Your task to perform on an android device: Add acer nitro to the cart on amazon.com, then select checkout. Image 0: 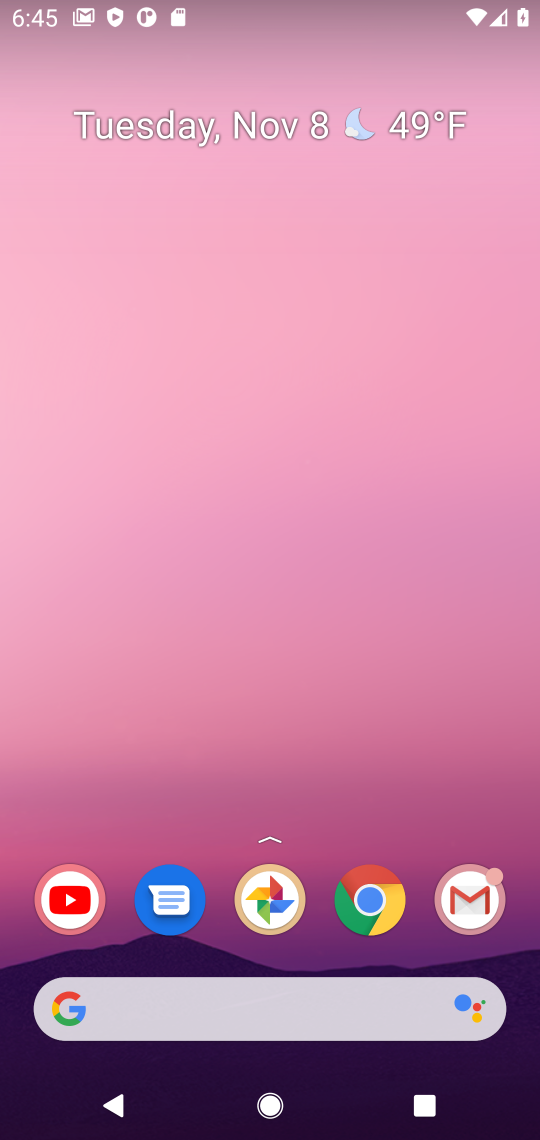
Step 0: click (239, 88)
Your task to perform on an android device: Add acer nitro to the cart on amazon.com, then select checkout. Image 1: 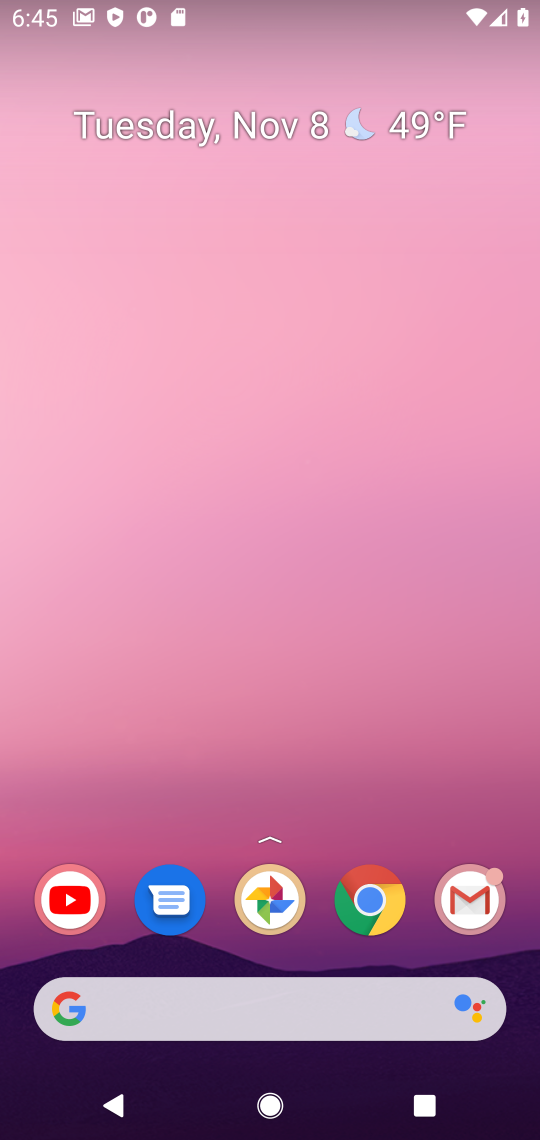
Step 1: click (391, 914)
Your task to perform on an android device: Add acer nitro to the cart on amazon.com, then select checkout. Image 2: 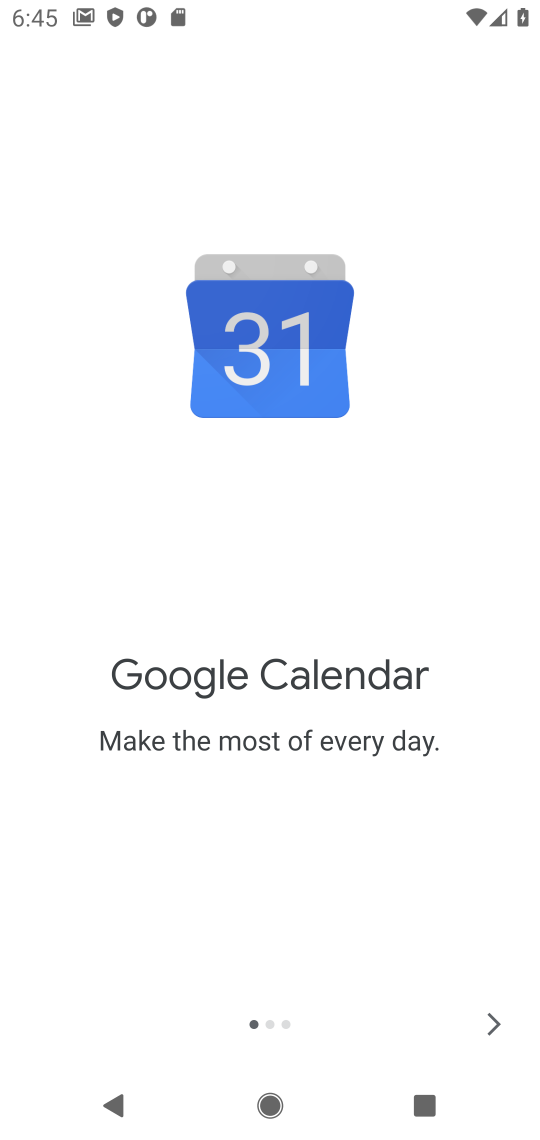
Step 2: press home button
Your task to perform on an android device: Add acer nitro to the cart on amazon.com, then select checkout. Image 3: 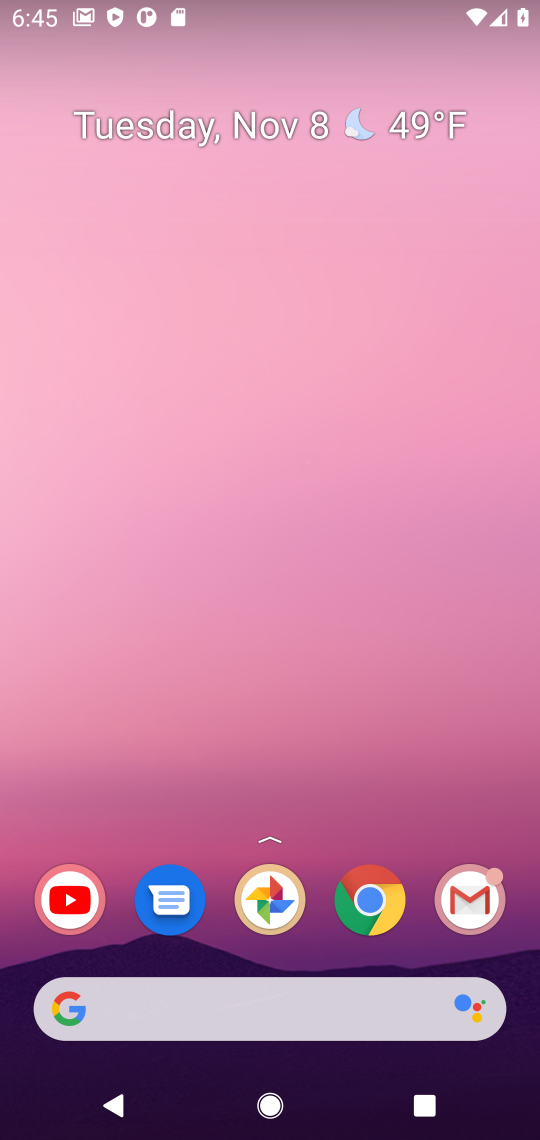
Step 3: click (378, 899)
Your task to perform on an android device: Add acer nitro to the cart on amazon.com, then select checkout. Image 4: 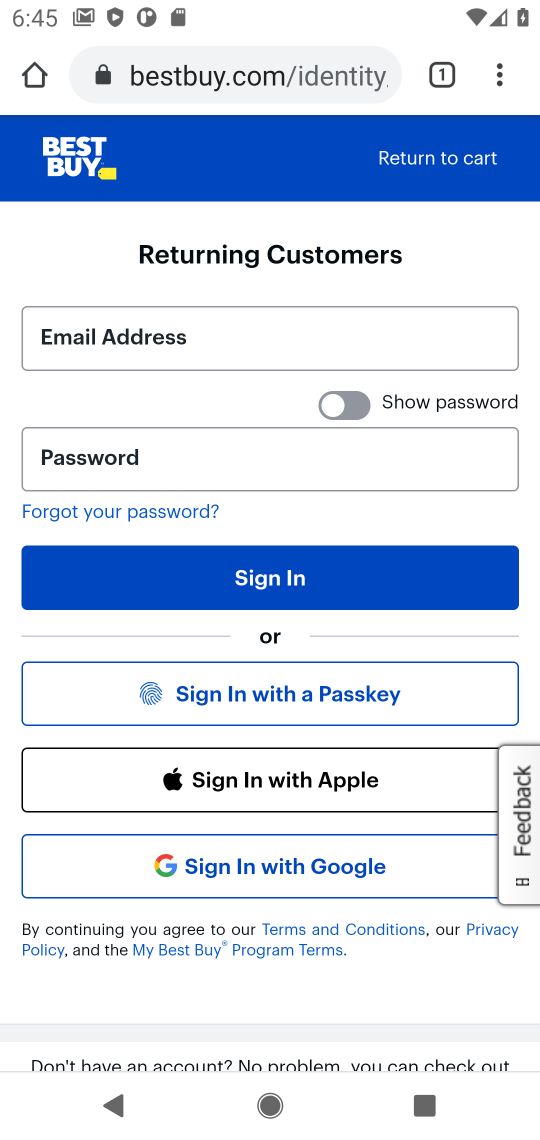
Step 4: click (248, 88)
Your task to perform on an android device: Add acer nitro to the cart on amazon.com, then select checkout. Image 5: 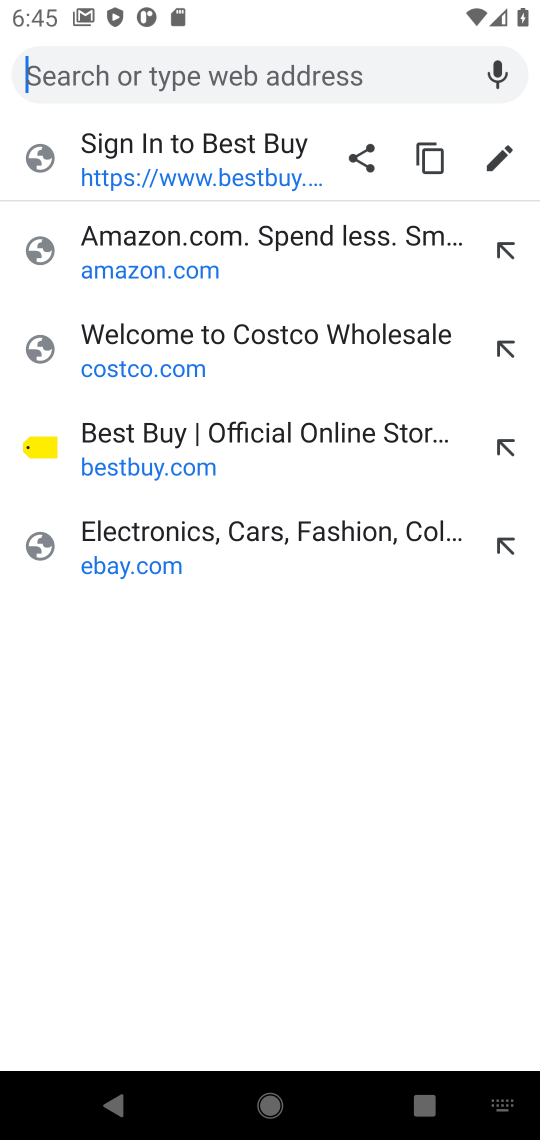
Step 5: type "amazon.com"
Your task to perform on an android device: Add acer nitro to the cart on amazon.com, then select checkout. Image 6: 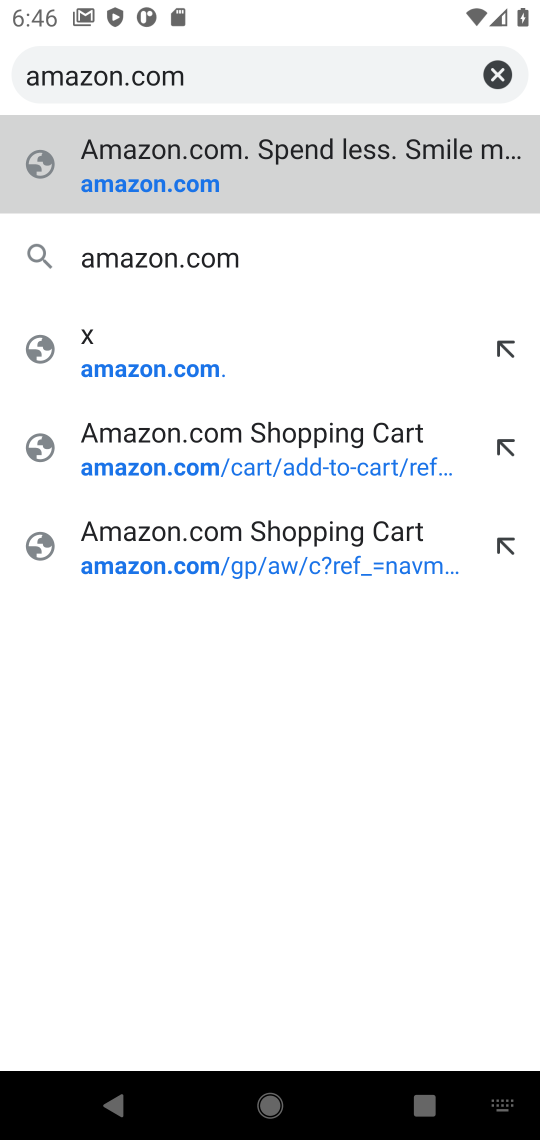
Step 6: type ""
Your task to perform on an android device: Add acer nitro to the cart on amazon.com, then select checkout. Image 7: 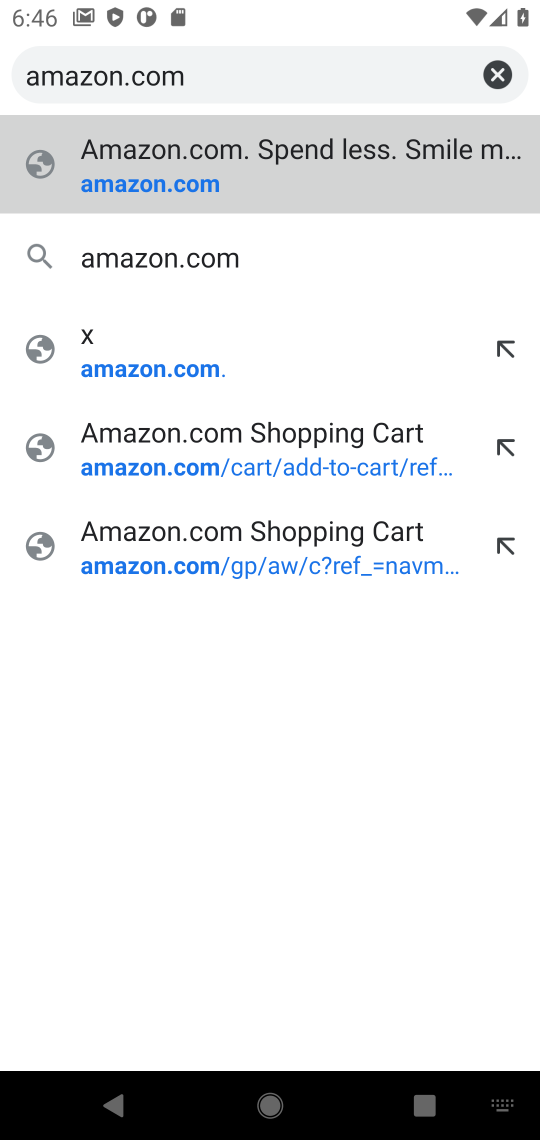
Step 7: press enter
Your task to perform on an android device: Add acer nitro to the cart on amazon.com, then select checkout. Image 8: 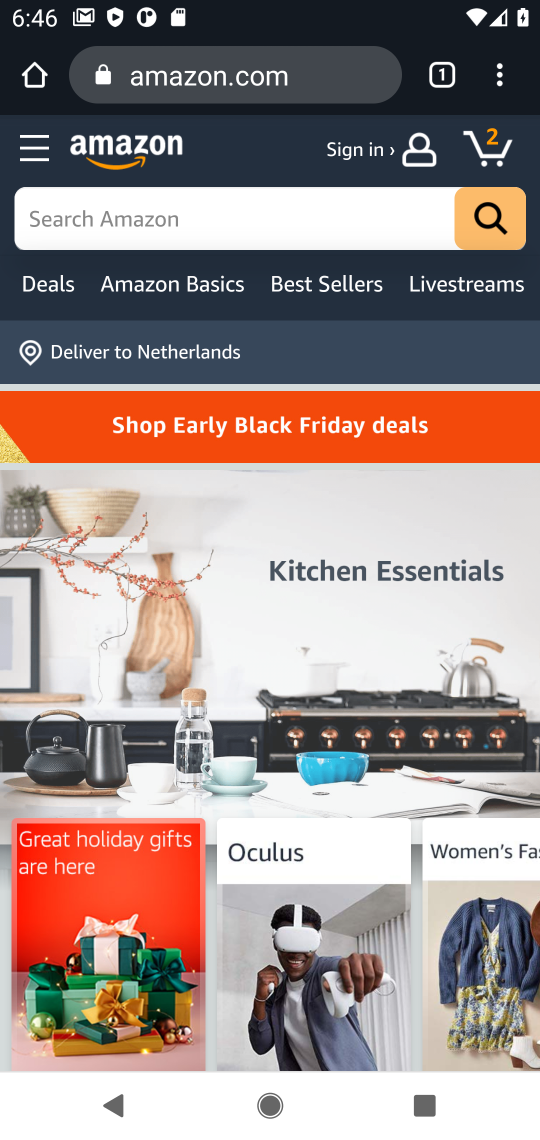
Step 8: click (251, 224)
Your task to perform on an android device: Add acer nitro to the cart on amazon.com, then select checkout. Image 9: 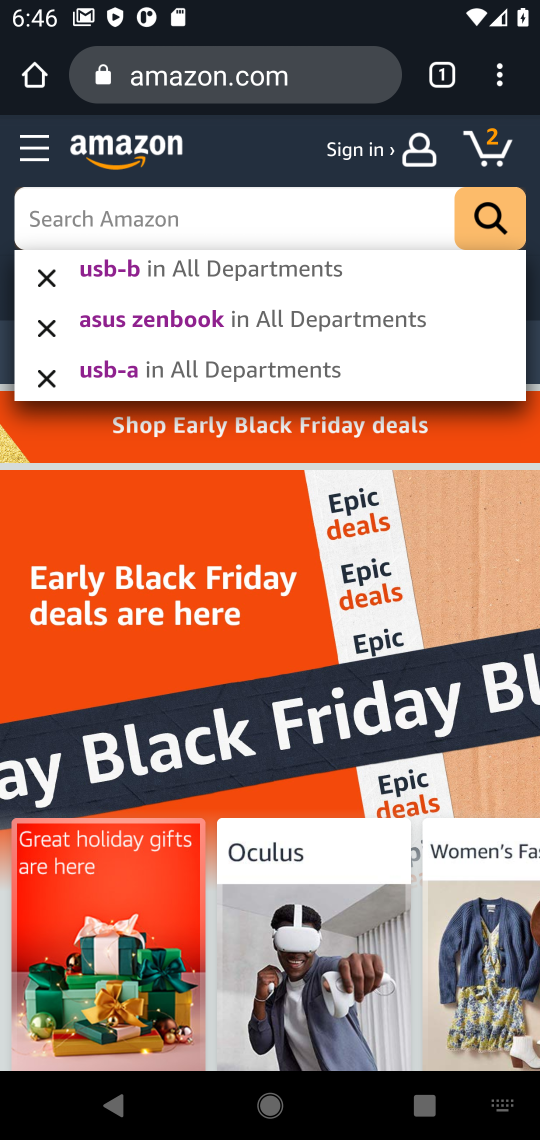
Step 9: type "acer nitro"
Your task to perform on an android device: Add acer nitro to the cart on amazon.com, then select checkout. Image 10: 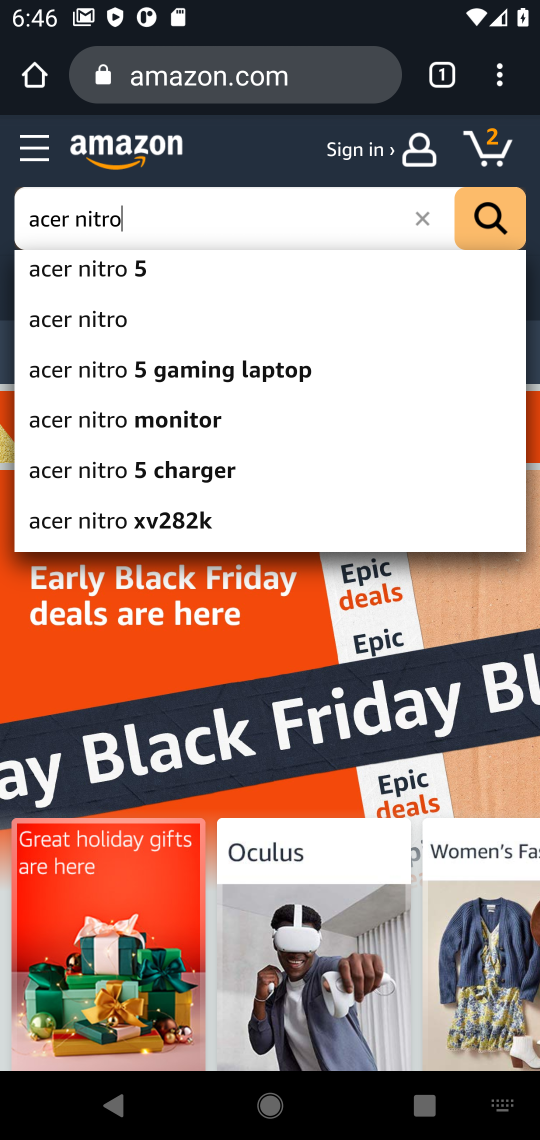
Step 10: press enter
Your task to perform on an android device: Add acer nitro to the cart on amazon.com, then select checkout. Image 11: 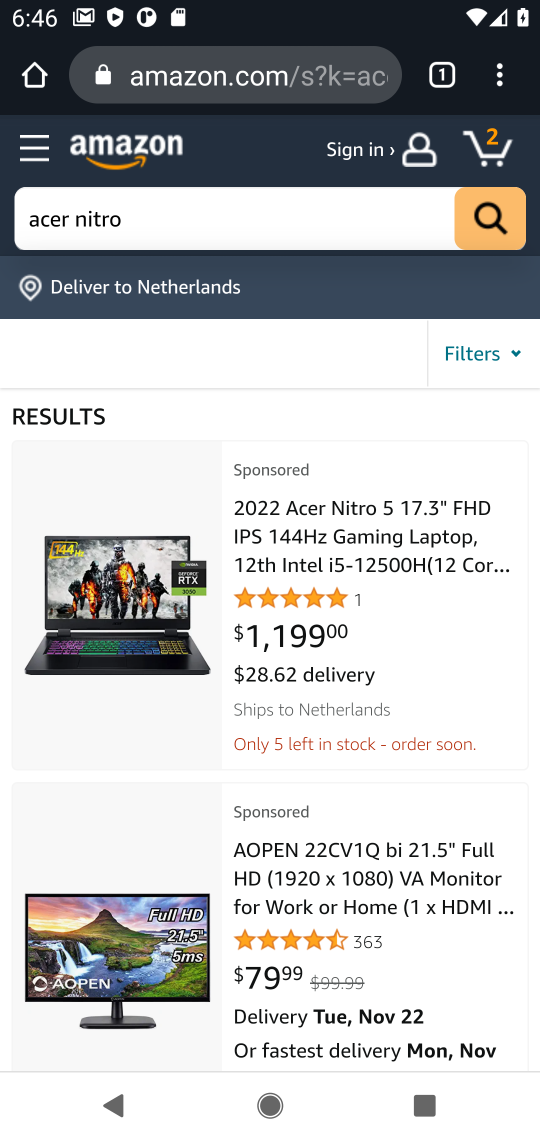
Step 11: click (370, 557)
Your task to perform on an android device: Add acer nitro to the cart on amazon.com, then select checkout. Image 12: 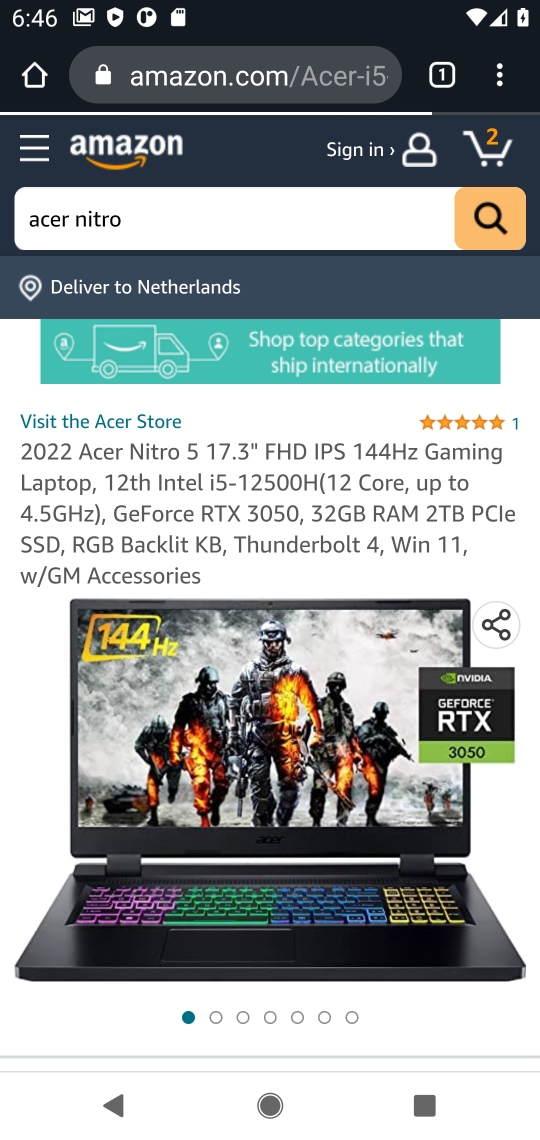
Step 12: drag from (267, 786) to (303, 290)
Your task to perform on an android device: Add acer nitro to the cart on amazon.com, then select checkout. Image 13: 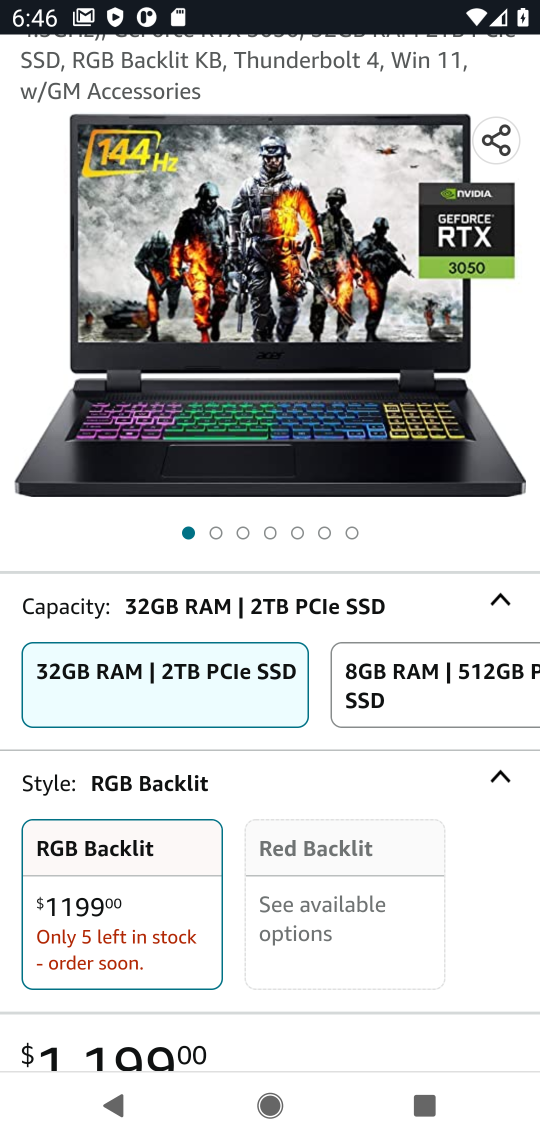
Step 13: drag from (343, 956) to (353, 379)
Your task to perform on an android device: Add acer nitro to the cart on amazon.com, then select checkout. Image 14: 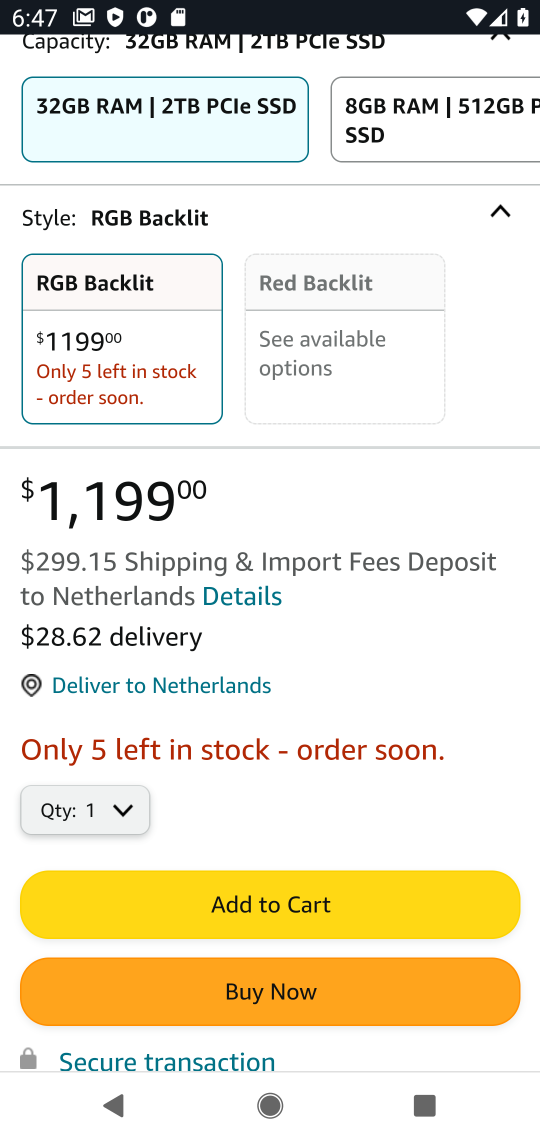
Step 14: click (214, 902)
Your task to perform on an android device: Add acer nitro to the cart on amazon.com, then select checkout. Image 15: 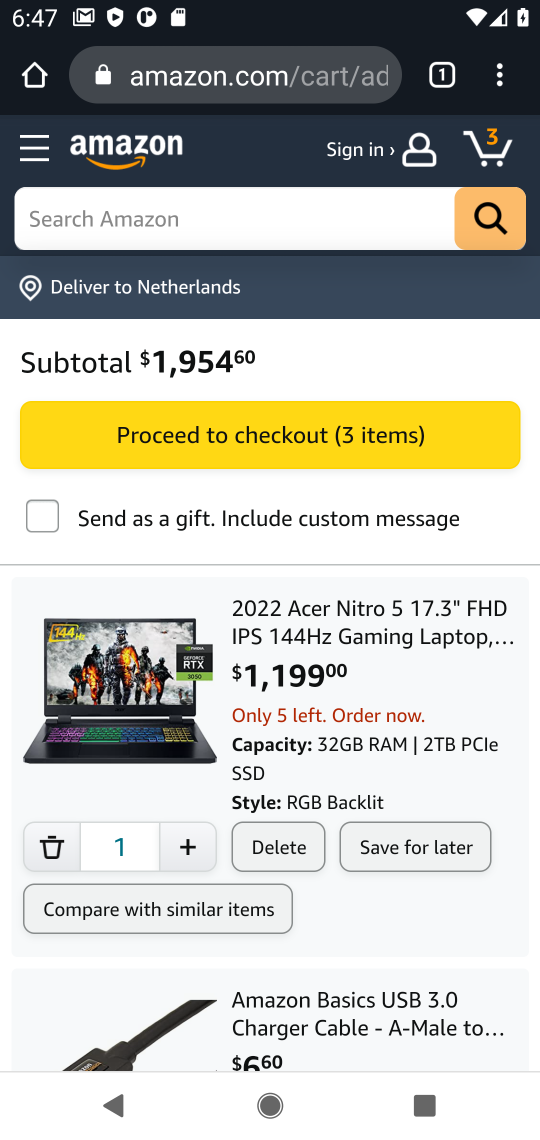
Step 15: click (300, 443)
Your task to perform on an android device: Add acer nitro to the cart on amazon.com, then select checkout. Image 16: 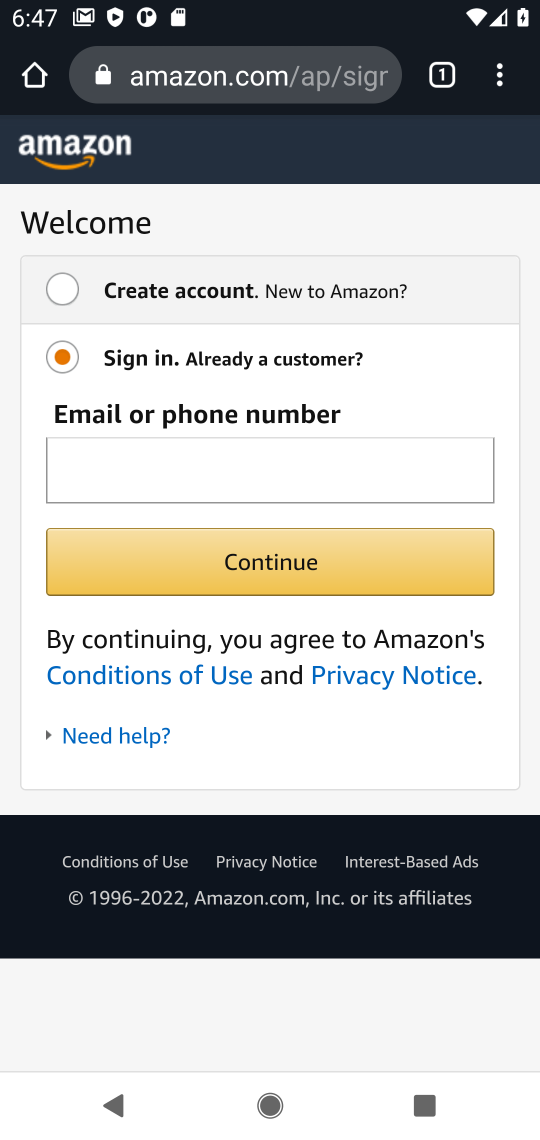
Step 16: task complete